Your task to perform on an android device: turn vacation reply on in the gmail app Image 0: 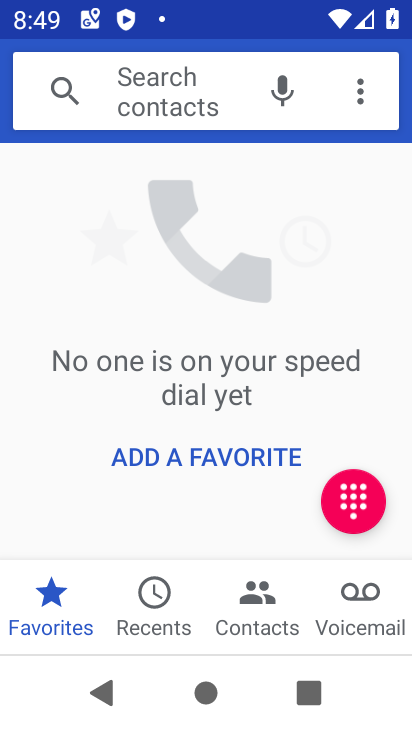
Step 0: press home button
Your task to perform on an android device: turn vacation reply on in the gmail app Image 1: 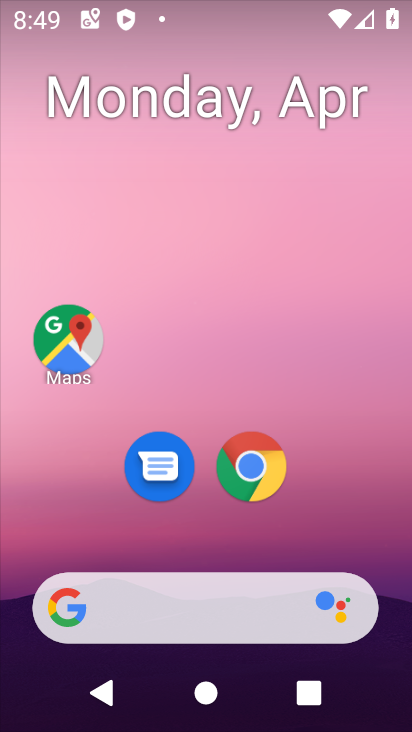
Step 1: drag from (220, 541) to (296, 23)
Your task to perform on an android device: turn vacation reply on in the gmail app Image 2: 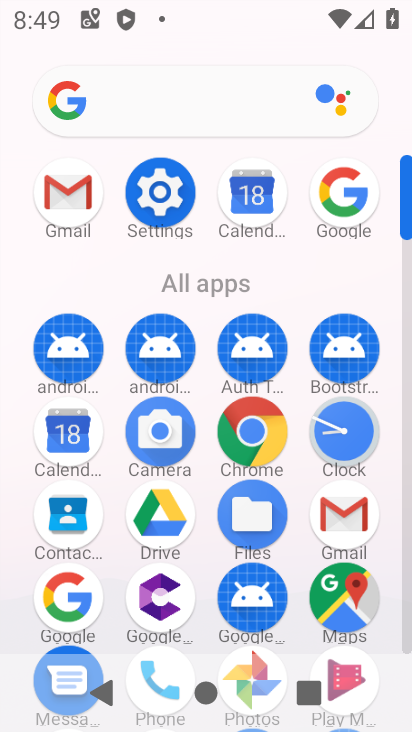
Step 2: click (70, 204)
Your task to perform on an android device: turn vacation reply on in the gmail app Image 3: 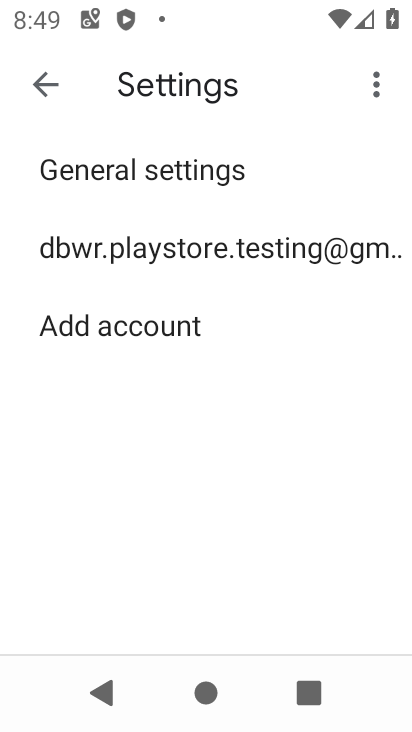
Step 3: click (101, 245)
Your task to perform on an android device: turn vacation reply on in the gmail app Image 4: 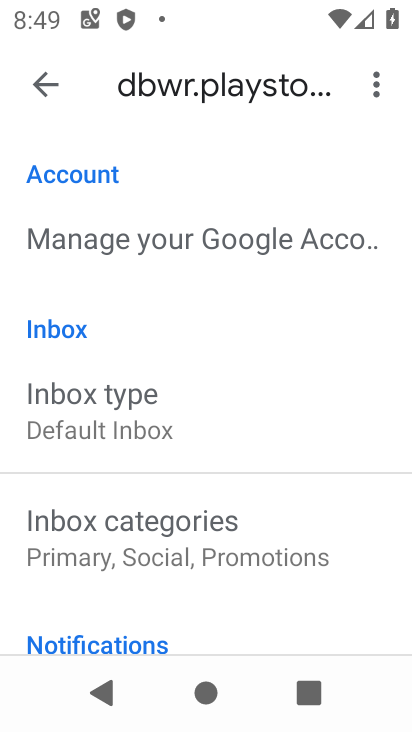
Step 4: drag from (170, 456) to (210, 374)
Your task to perform on an android device: turn vacation reply on in the gmail app Image 5: 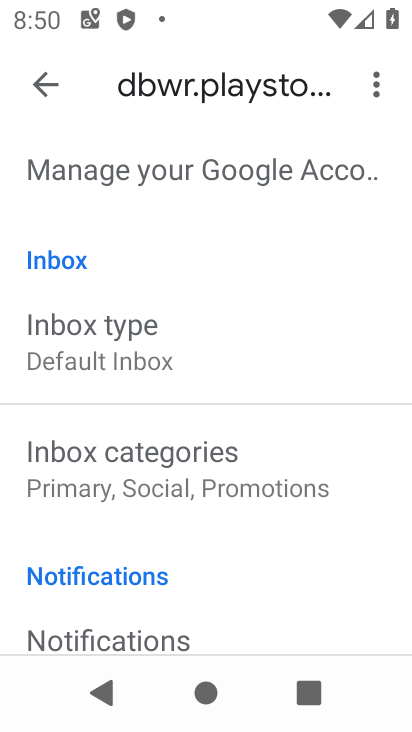
Step 5: drag from (172, 539) to (216, 445)
Your task to perform on an android device: turn vacation reply on in the gmail app Image 6: 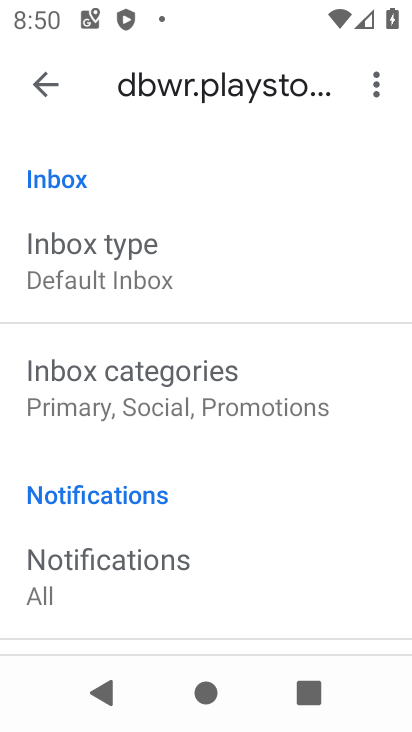
Step 6: drag from (192, 513) to (251, 391)
Your task to perform on an android device: turn vacation reply on in the gmail app Image 7: 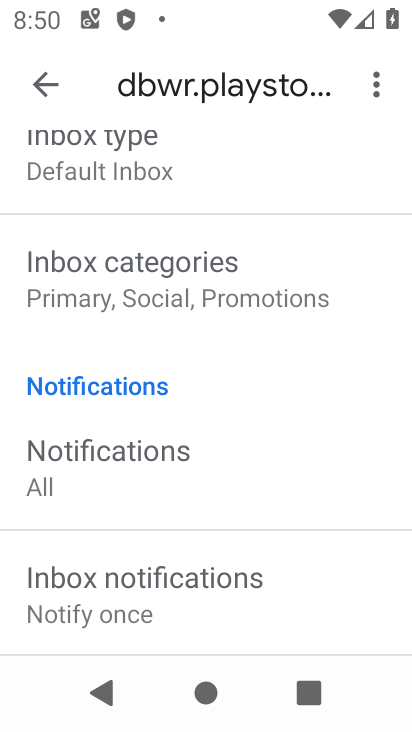
Step 7: drag from (196, 487) to (284, 375)
Your task to perform on an android device: turn vacation reply on in the gmail app Image 8: 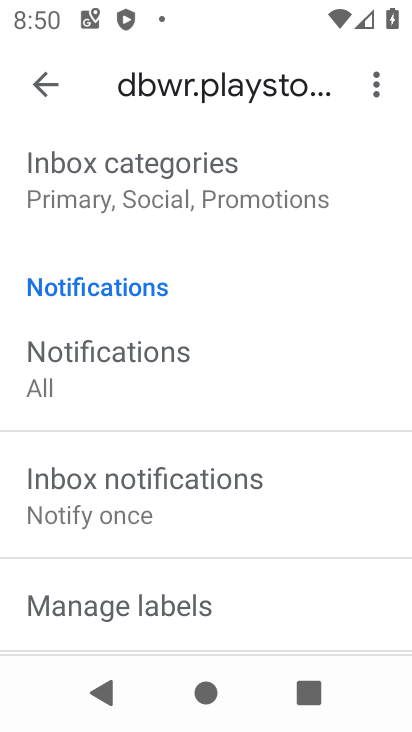
Step 8: drag from (186, 527) to (269, 388)
Your task to perform on an android device: turn vacation reply on in the gmail app Image 9: 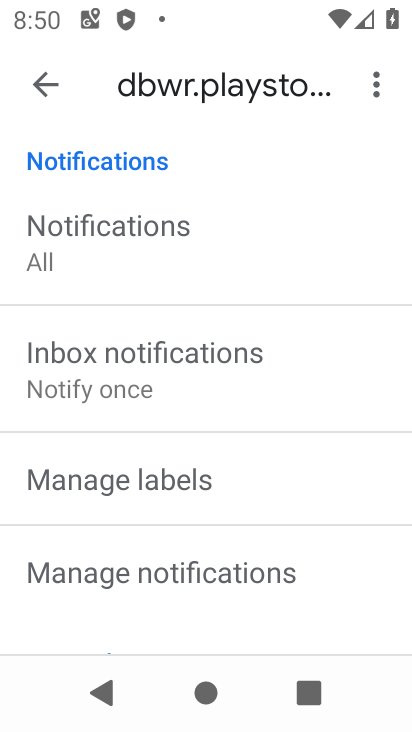
Step 9: drag from (229, 518) to (291, 408)
Your task to perform on an android device: turn vacation reply on in the gmail app Image 10: 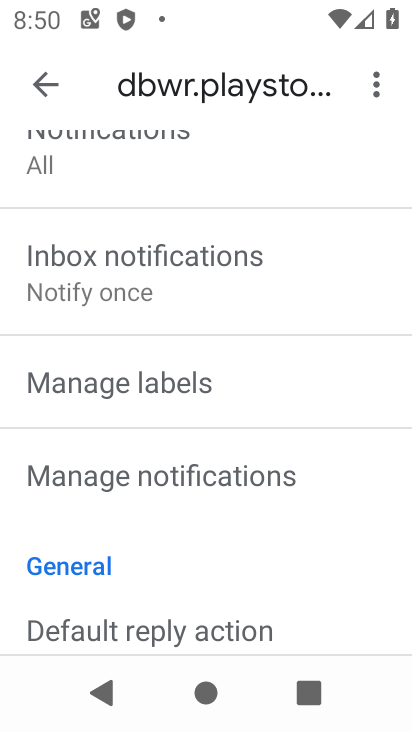
Step 10: drag from (208, 553) to (256, 431)
Your task to perform on an android device: turn vacation reply on in the gmail app Image 11: 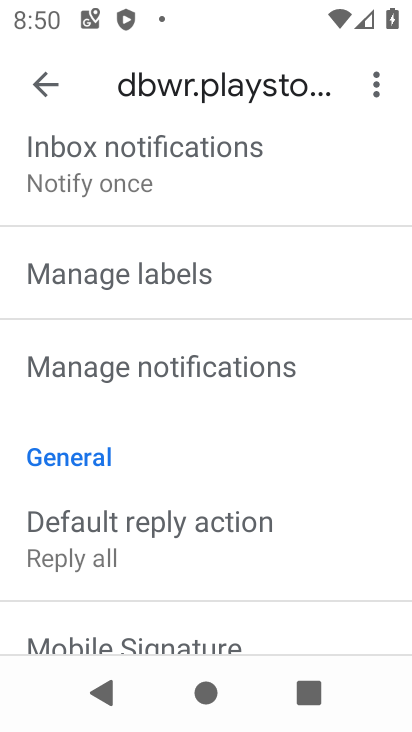
Step 11: drag from (159, 576) to (254, 449)
Your task to perform on an android device: turn vacation reply on in the gmail app Image 12: 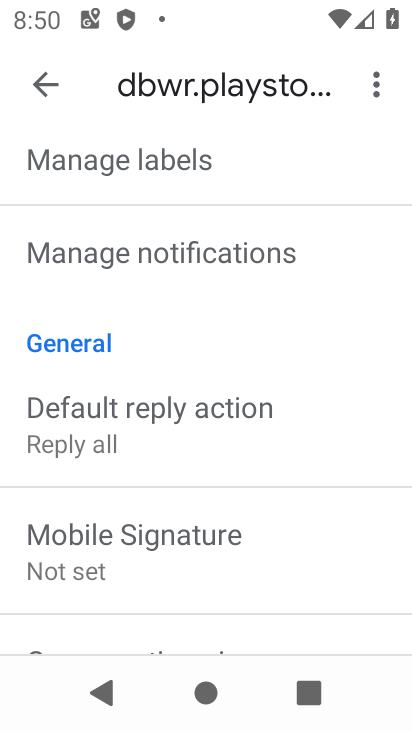
Step 12: drag from (162, 564) to (259, 419)
Your task to perform on an android device: turn vacation reply on in the gmail app Image 13: 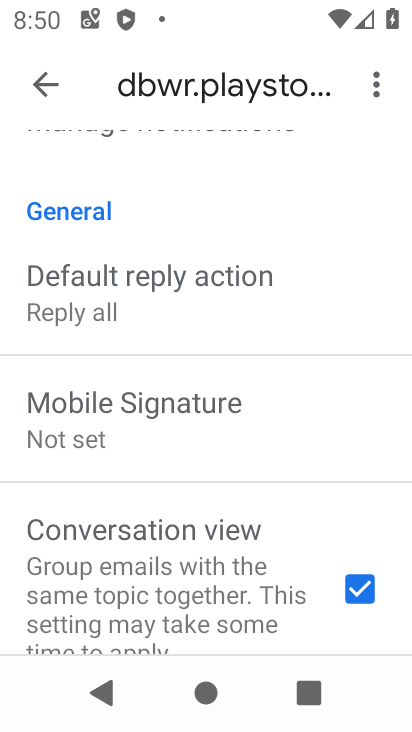
Step 13: drag from (192, 497) to (299, 385)
Your task to perform on an android device: turn vacation reply on in the gmail app Image 14: 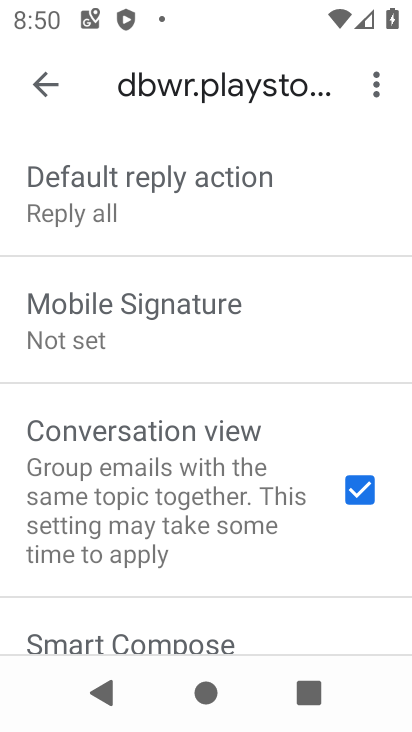
Step 14: drag from (190, 576) to (301, 383)
Your task to perform on an android device: turn vacation reply on in the gmail app Image 15: 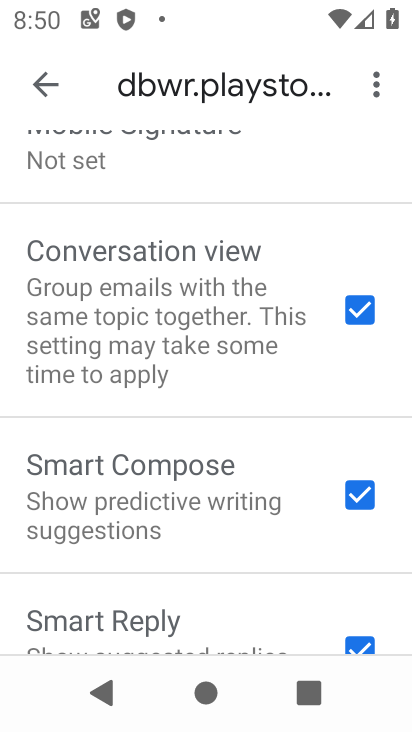
Step 15: drag from (210, 568) to (304, 415)
Your task to perform on an android device: turn vacation reply on in the gmail app Image 16: 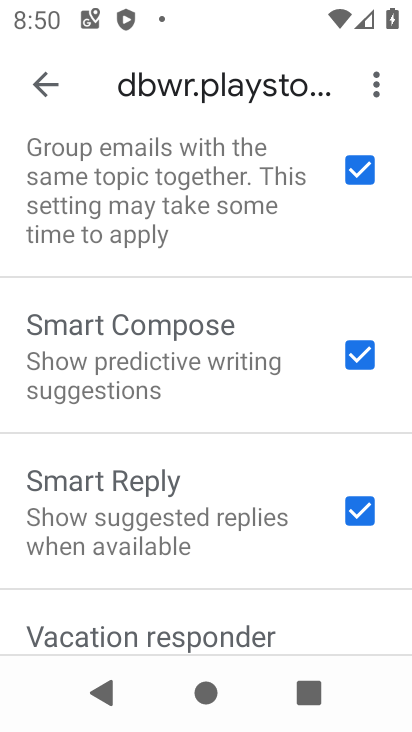
Step 16: drag from (188, 585) to (295, 422)
Your task to perform on an android device: turn vacation reply on in the gmail app Image 17: 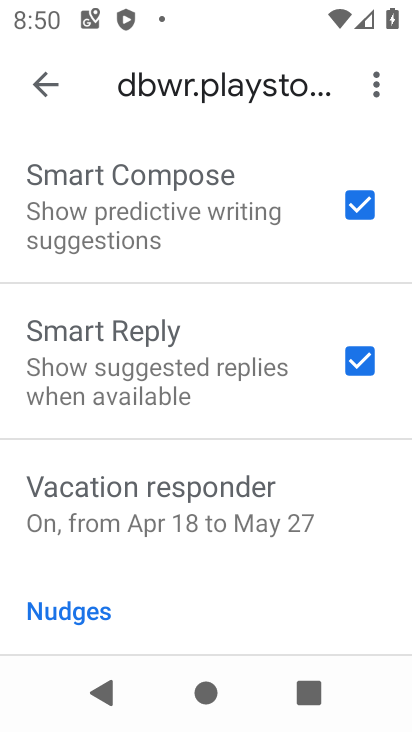
Step 17: click (225, 484)
Your task to perform on an android device: turn vacation reply on in the gmail app Image 18: 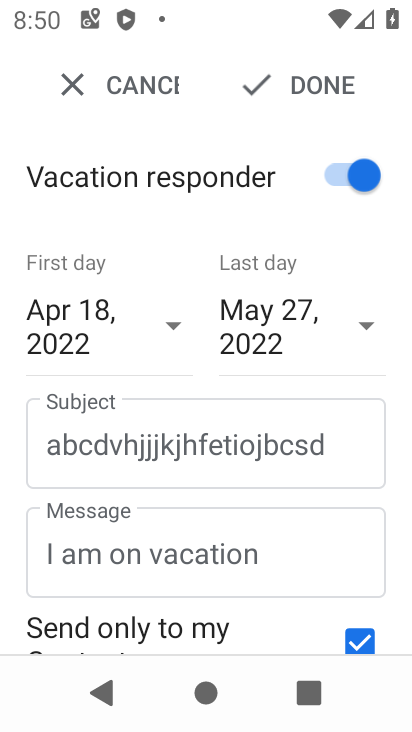
Step 18: task complete